Your task to perform on an android device: turn off notifications in google photos Image 0: 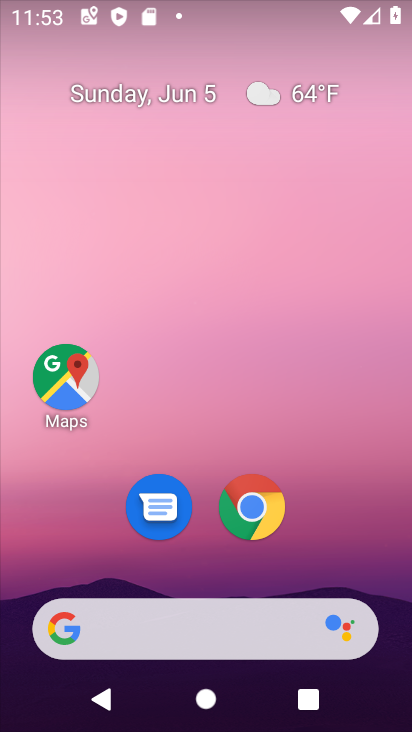
Step 0: drag from (328, 522) to (238, 106)
Your task to perform on an android device: turn off notifications in google photos Image 1: 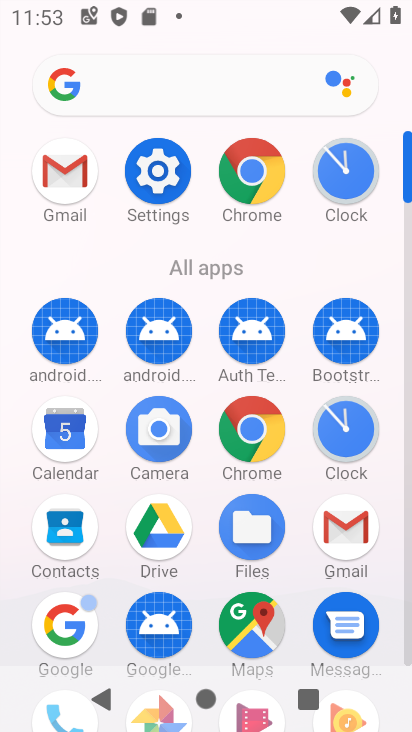
Step 1: drag from (299, 569) to (267, 196)
Your task to perform on an android device: turn off notifications in google photos Image 2: 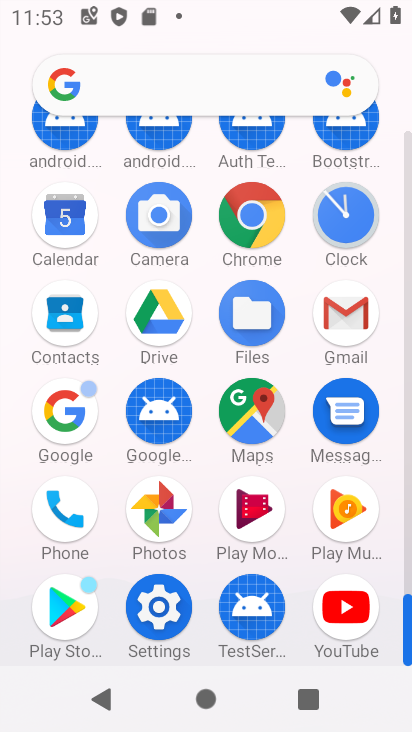
Step 2: click (178, 495)
Your task to perform on an android device: turn off notifications in google photos Image 3: 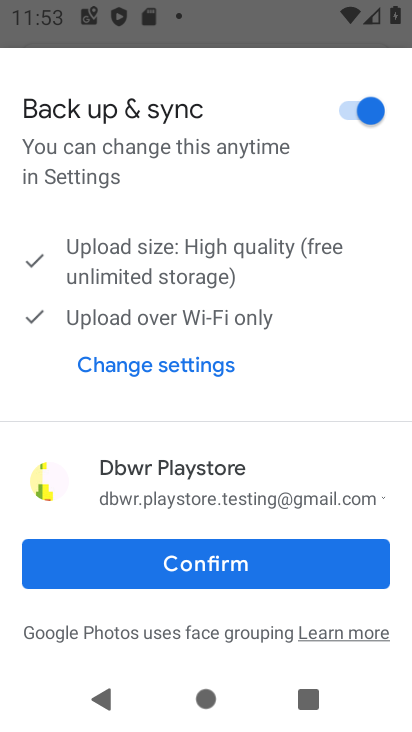
Step 3: click (232, 567)
Your task to perform on an android device: turn off notifications in google photos Image 4: 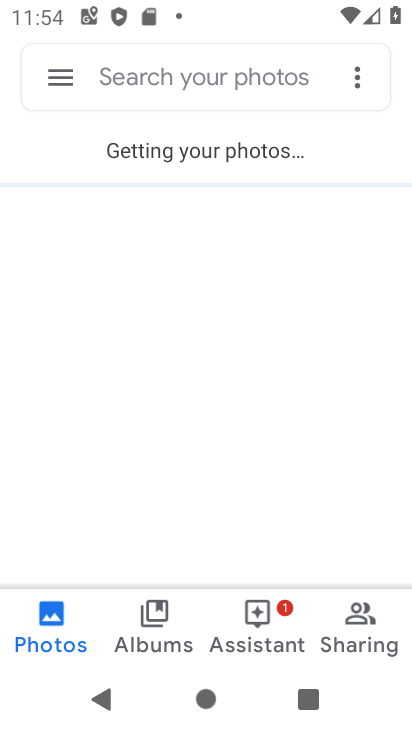
Step 4: click (51, 67)
Your task to perform on an android device: turn off notifications in google photos Image 5: 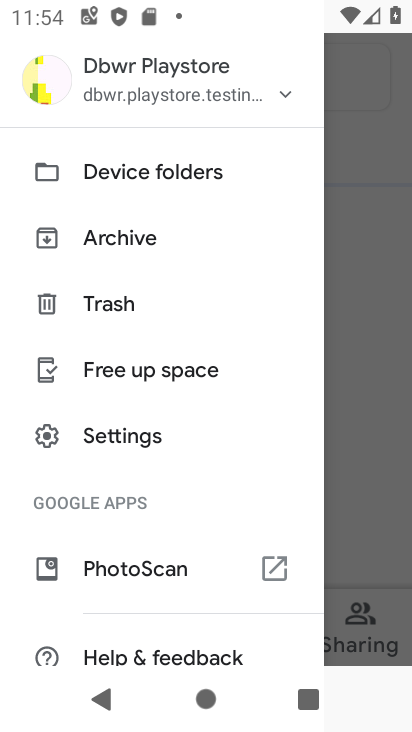
Step 5: drag from (165, 579) to (225, 221)
Your task to perform on an android device: turn off notifications in google photos Image 6: 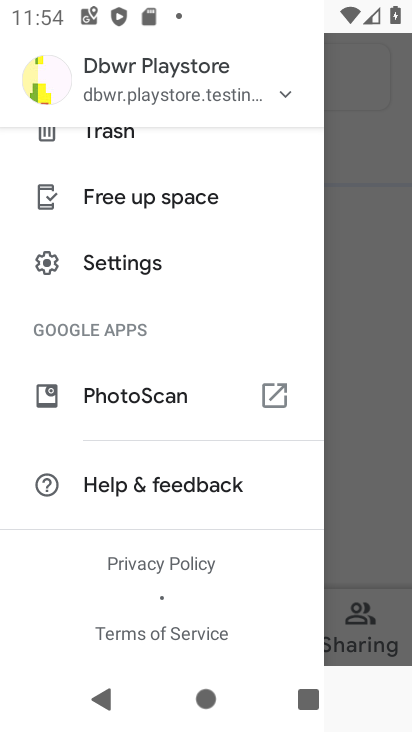
Step 6: click (141, 271)
Your task to perform on an android device: turn off notifications in google photos Image 7: 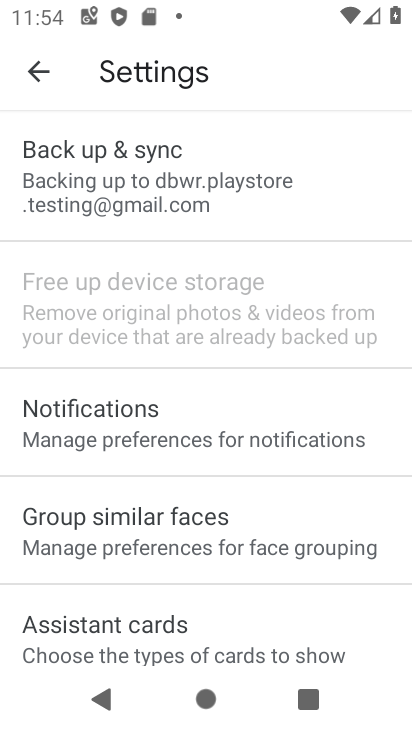
Step 7: drag from (212, 565) to (233, 353)
Your task to perform on an android device: turn off notifications in google photos Image 8: 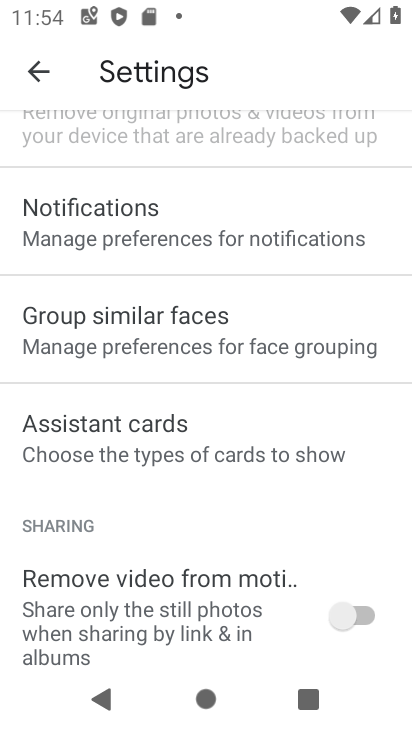
Step 8: click (145, 235)
Your task to perform on an android device: turn off notifications in google photos Image 9: 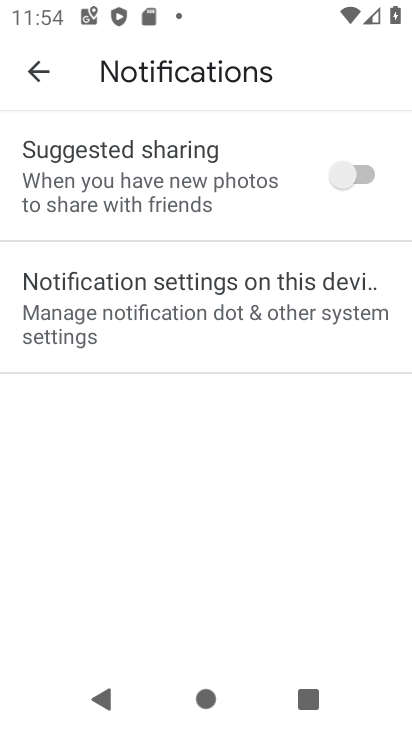
Step 9: click (202, 321)
Your task to perform on an android device: turn off notifications in google photos Image 10: 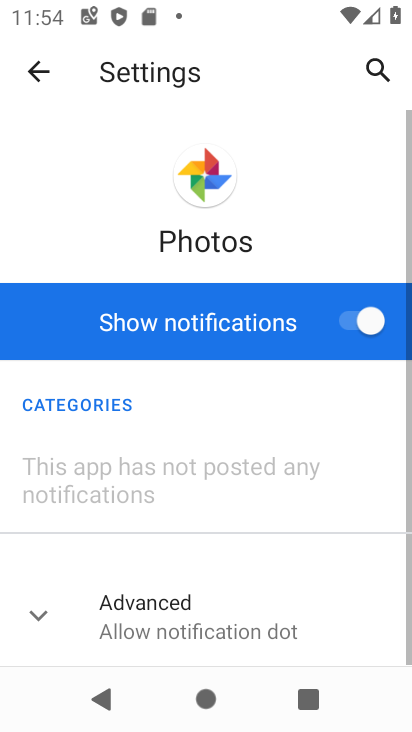
Step 10: click (368, 309)
Your task to perform on an android device: turn off notifications in google photos Image 11: 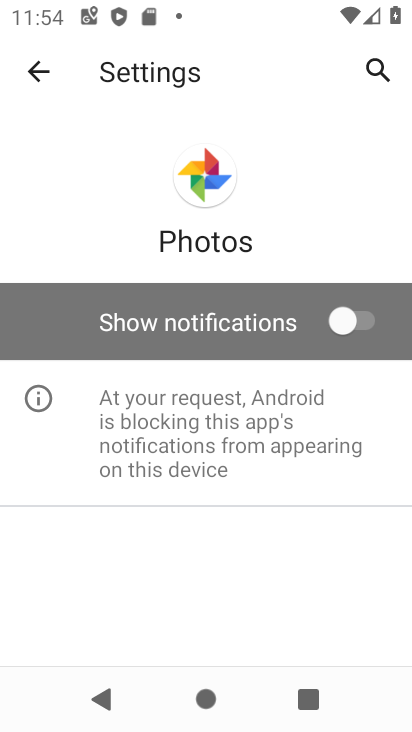
Step 11: task complete